Your task to perform on an android device: Open the Play Movies app and select the watchlist tab. Image 0: 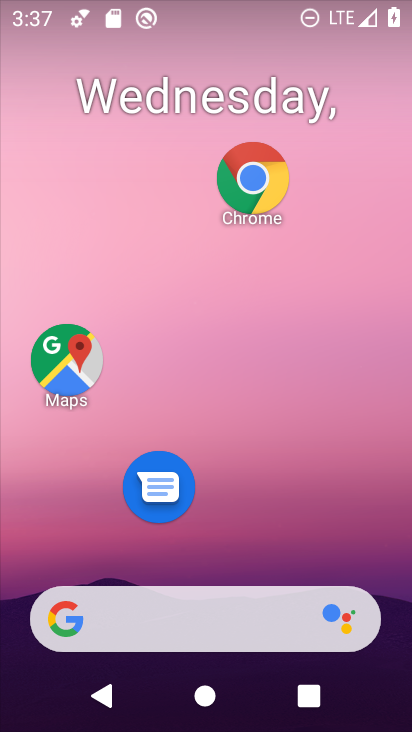
Step 0: click (269, 610)
Your task to perform on an android device: Open the Play Movies app and select the watchlist tab. Image 1: 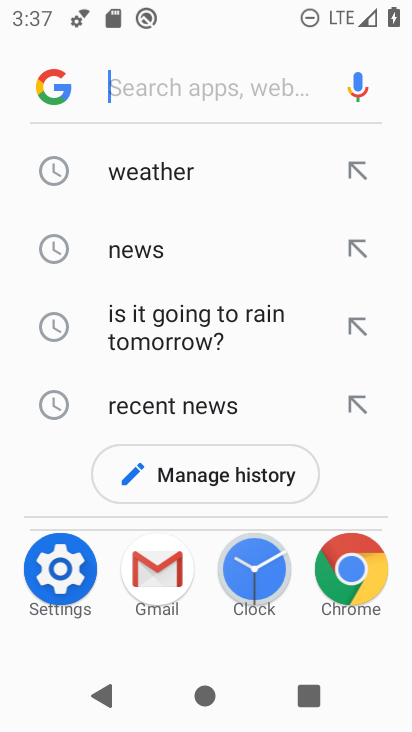
Step 1: click (260, 652)
Your task to perform on an android device: Open the Play Movies app and select the watchlist tab. Image 2: 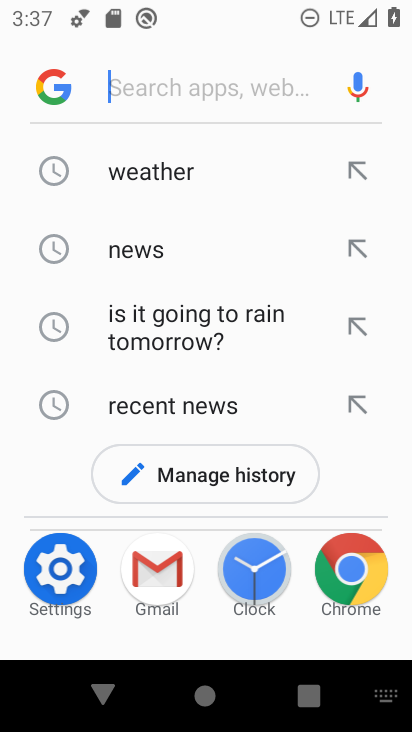
Step 2: press home button
Your task to perform on an android device: Open the Play Movies app and select the watchlist tab. Image 3: 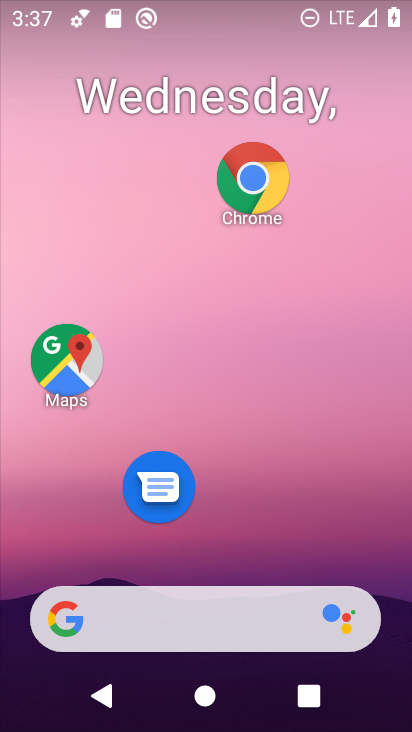
Step 3: drag from (213, 533) to (244, 197)
Your task to perform on an android device: Open the Play Movies app and select the watchlist tab. Image 4: 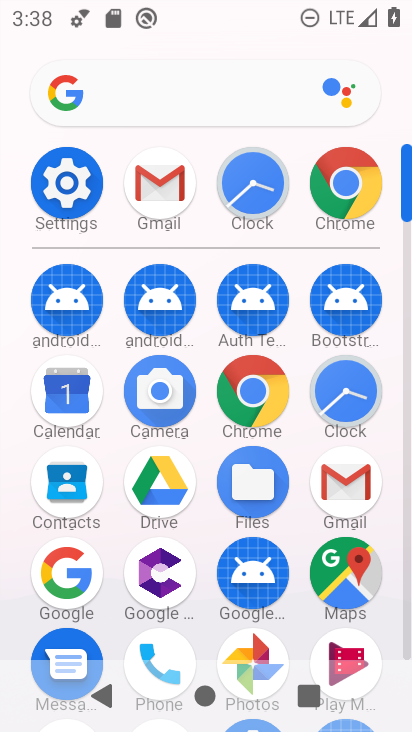
Step 4: drag from (299, 623) to (307, 410)
Your task to perform on an android device: Open the Play Movies app and select the watchlist tab. Image 5: 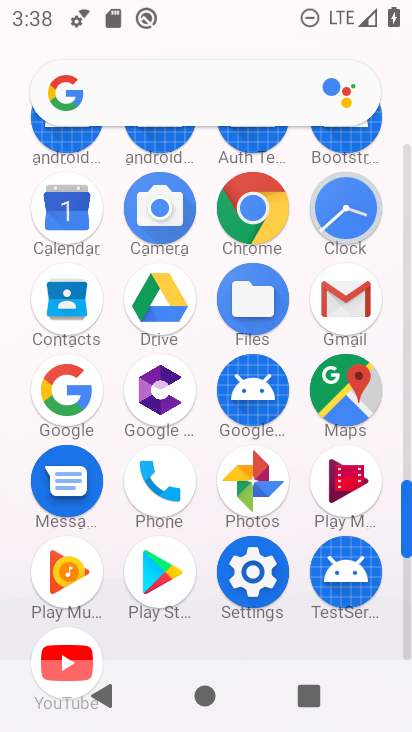
Step 5: click (363, 458)
Your task to perform on an android device: Open the Play Movies app and select the watchlist tab. Image 6: 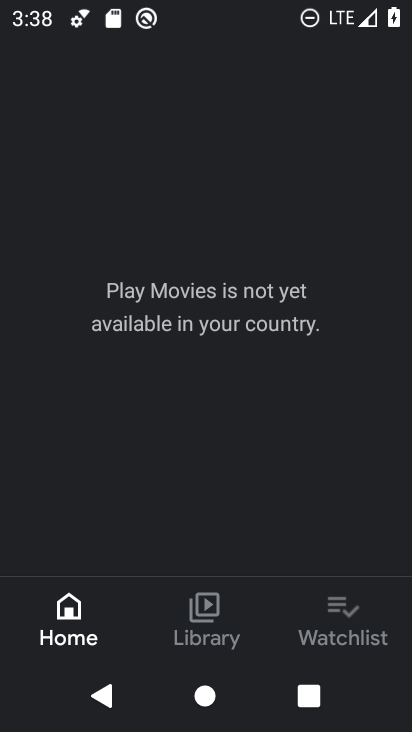
Step 6: click (309, 613)
Your task to perform on an android device: Open the Play Movies app and select the watchlist tab. Image 7: 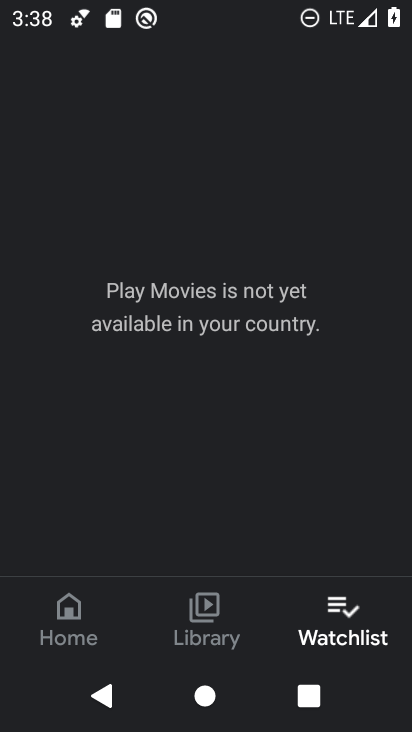
Step 7: task complete